Your task to perform on an android device: remove spam from my inbox in the gmail app Image 0: 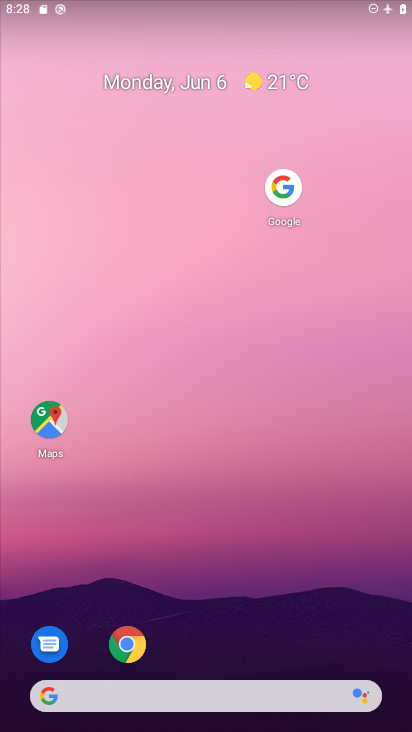
Step 0: drag from (208, 669) to (194, 237)
Your task to perform on an android device: remove spam from my inbox in the gmail app Image 1: 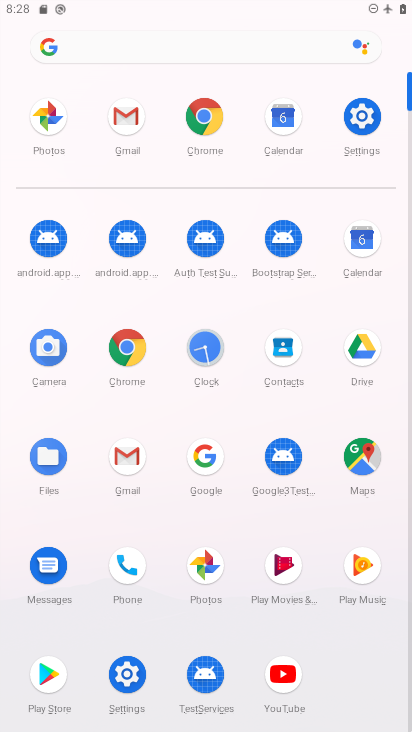
Step 1: click (123, 465)
Your task to perform on an android device: remove spam from my inbox in the gmail app Image 2: 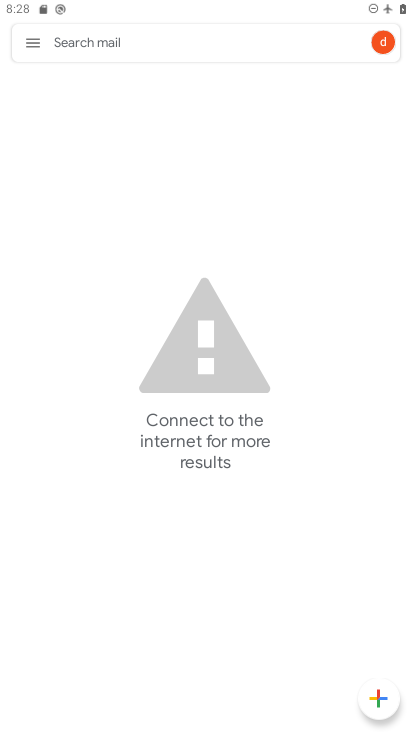
Step 2: click (38, 32)
Your task to perform on an android device: remove spam from my inbox in the gmail app Image 3: 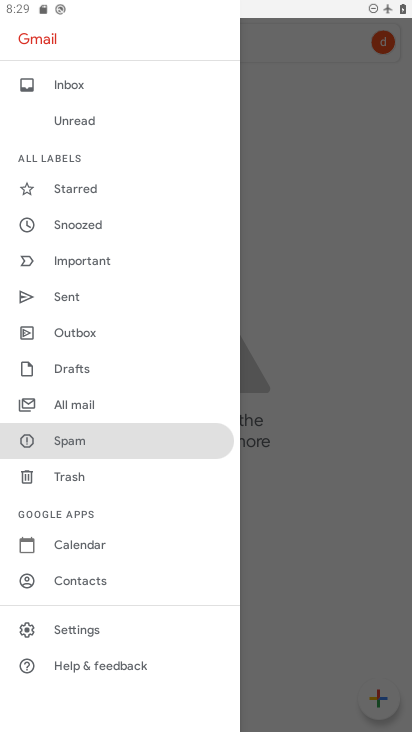
Step 3: click (147, 458)
Your task to perform on an android device: remove spam from my inbox in the gmail app Image 4: 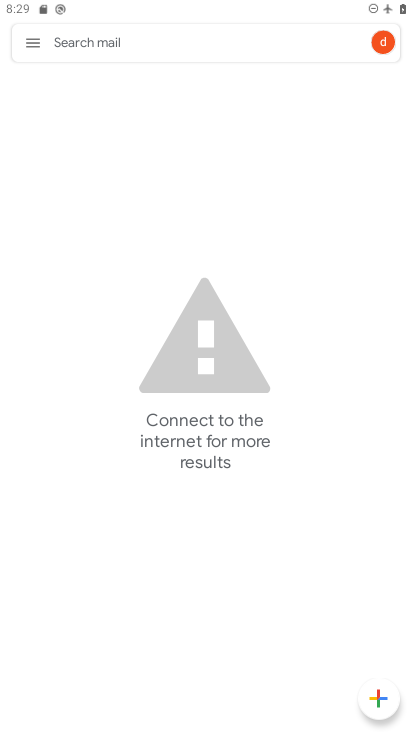
Step 4: task complete